Your task to perform on an android device: Open Android settings Image 0: 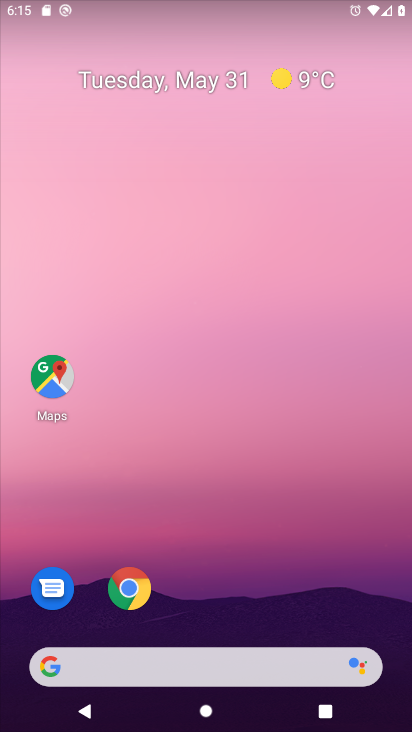
Step 0: drag from (261, 603) to (268, 231)
Your task to perform on an android device: Open Android settings Image 1: 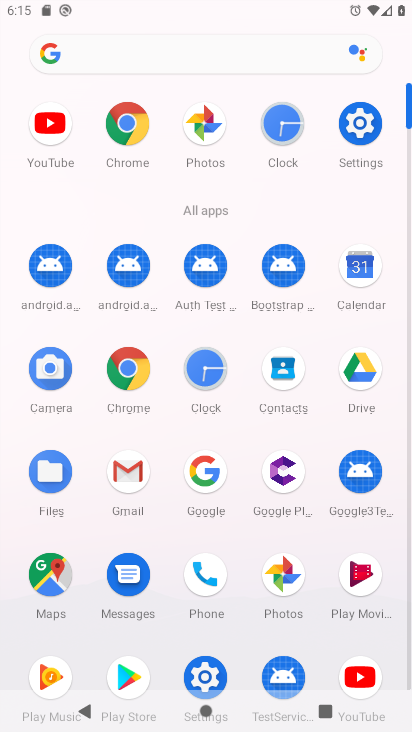
Step 1: click (358, 155)
Your task to perform on an android device: Open Android settings Image 2: 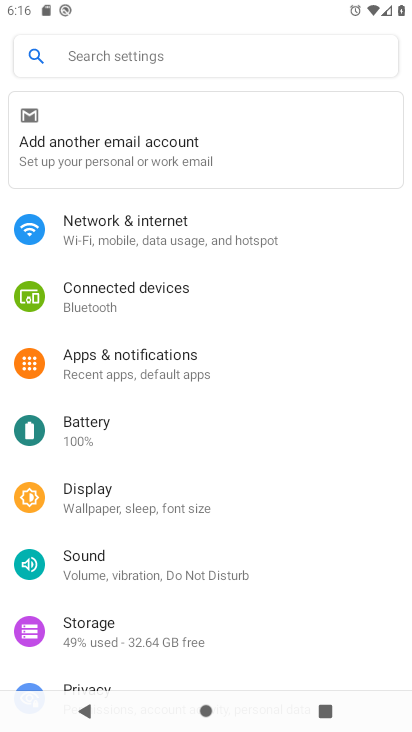
Step 2: drag from (164, 585) to (224, 235)
Your task to perform on an android device: Open Android settings Image 3: 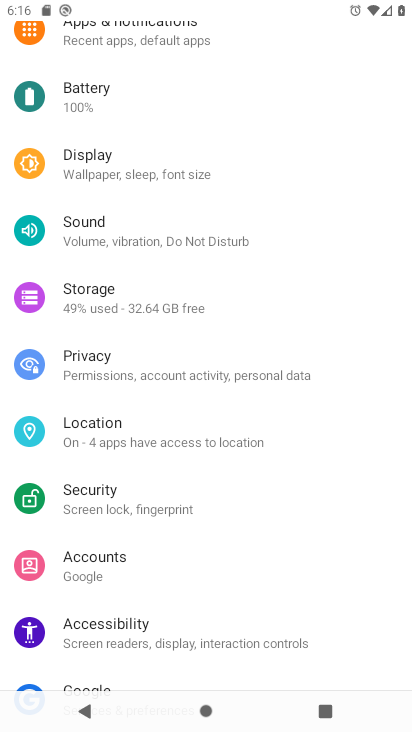
Step 3: drag from (147, 600) to (206, 275)
Your task to perform on an android device: Open Android settings Image 4: 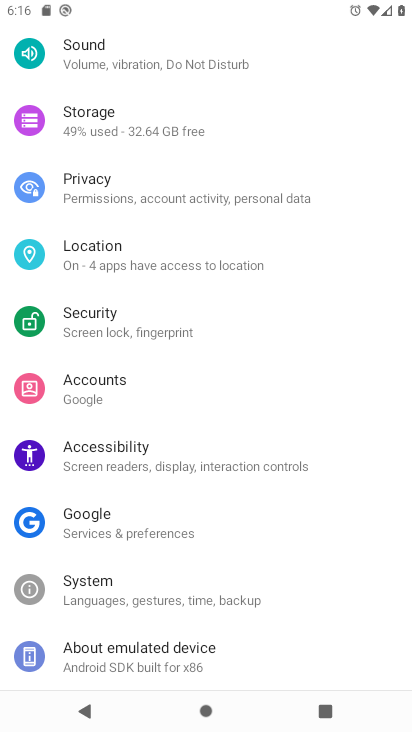
Step 4: click (133, 642)
Your task to perform on an android device: Open Android settings Image 5: 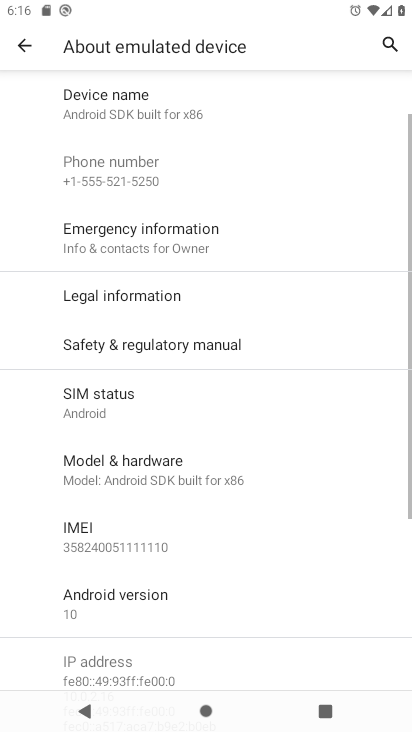
Step 5: drag from (129, 611) to (165, 395)
Your task to perform on an android device: Open Android settings Image 6: 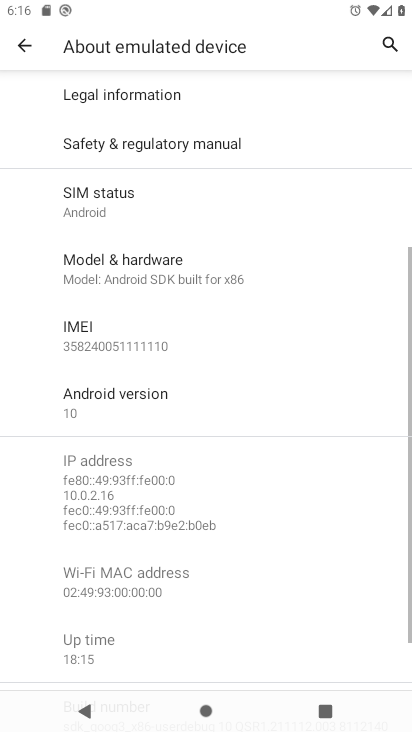
Step 6: click (127, 562)
Your task to perform on an android device: Open Android settings Image 7: 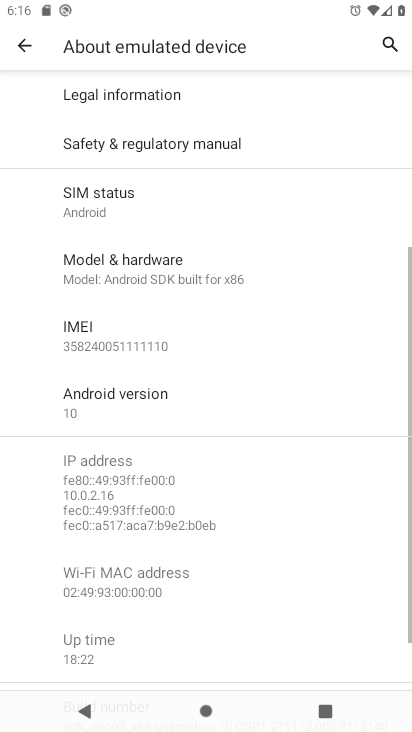
Step 7: click (157, 407)
Your task to perform on an android device: Open Android settings Image 8: 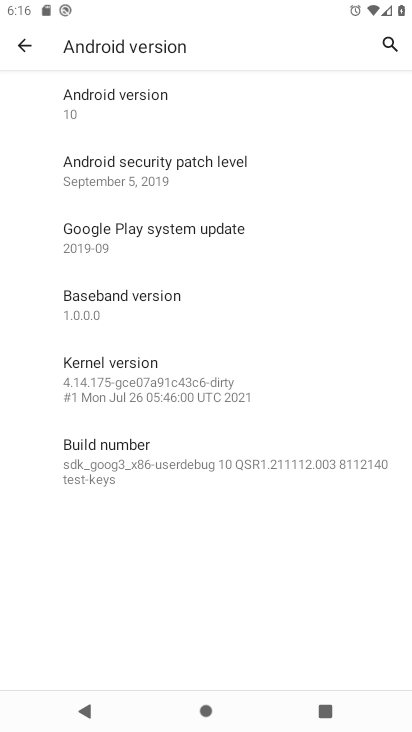
Step 8: task complete